Your task to perform on an android device: Open Amazon Image 0: 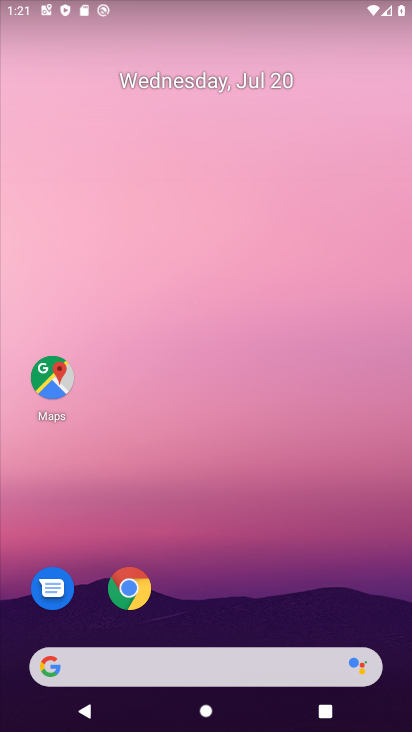
Step 0: click (140, 584)
Your task to perform on an android device: Open Amazon Image 1: 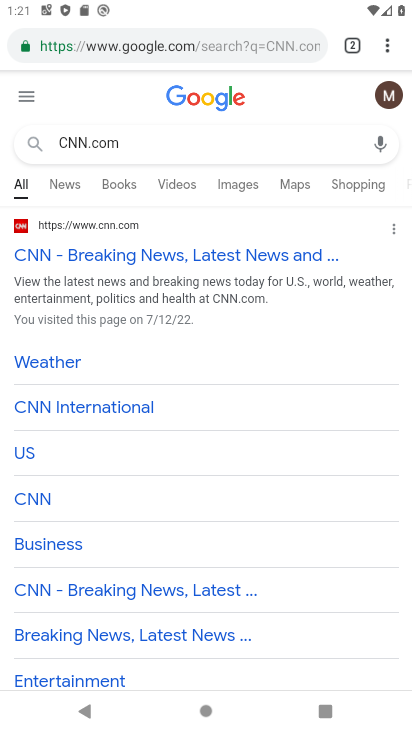
Step 1: click (291, 45)
Your task to perform on an android device: Open Amazon Image 2: 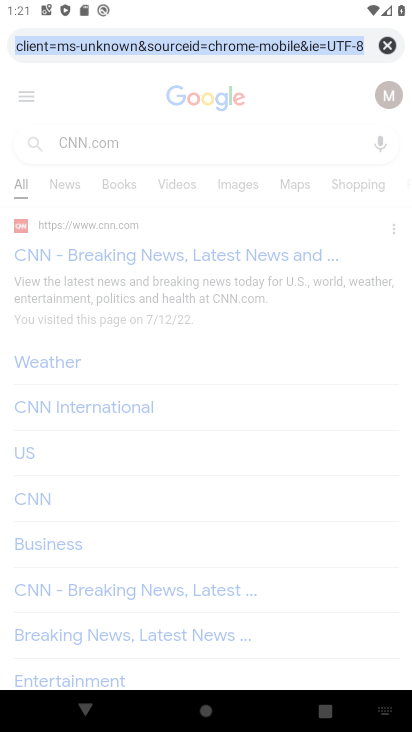
Step 2: click (383, 45)
Your task to perform on an android device: Open Amazon Image 3: 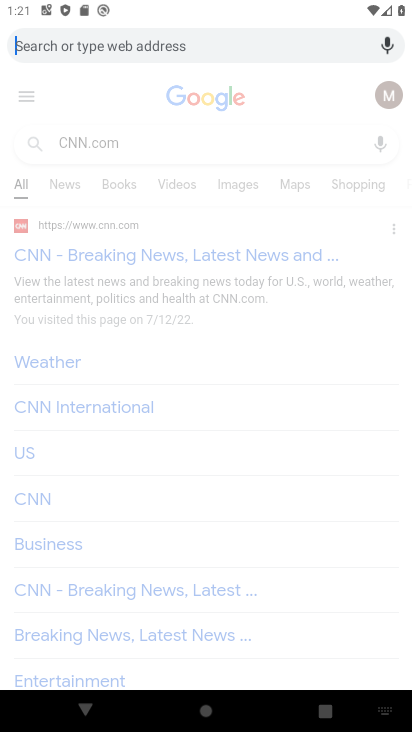
Step 3: type "Amazon"
Your task to perform on an android device: Open Amazon Image 4: 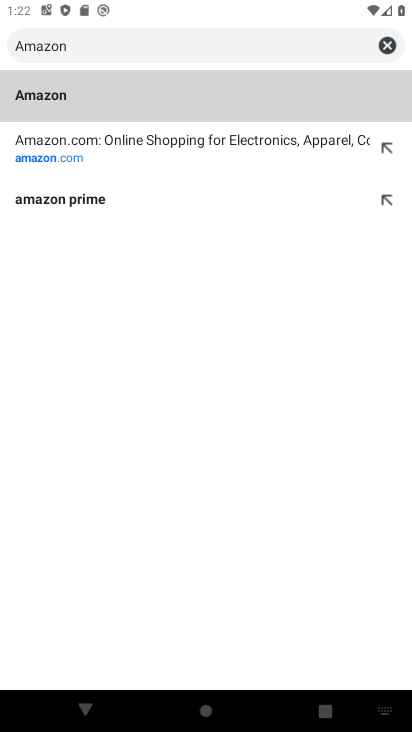
Step 4: click (109, 92)
Your task to perform on an android device: Open Amazon Image 5: 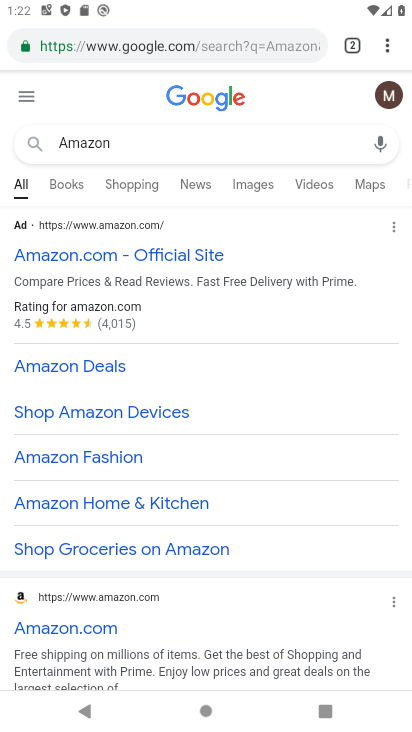
Step 5: task complete